Your task to perform on an android device: Open the calendar app, open the side menu, and click the "Day" option Image 0: 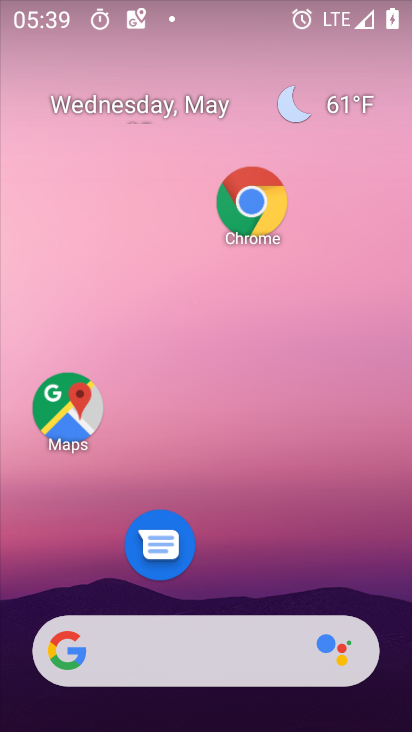
Step 0: drag from (216, 623) to (176, 247)
Your task to perform on an android device: Open the calendar app, open the side menu, and click the "Day" option Image 1: 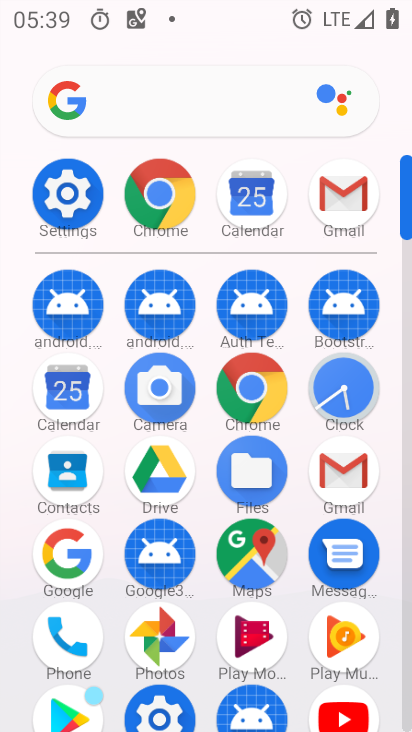
Step 1: click (259, 200)
Your task to perform on an android device: Open the calendar app, open the side menu, and click the "Day" option Image 2: 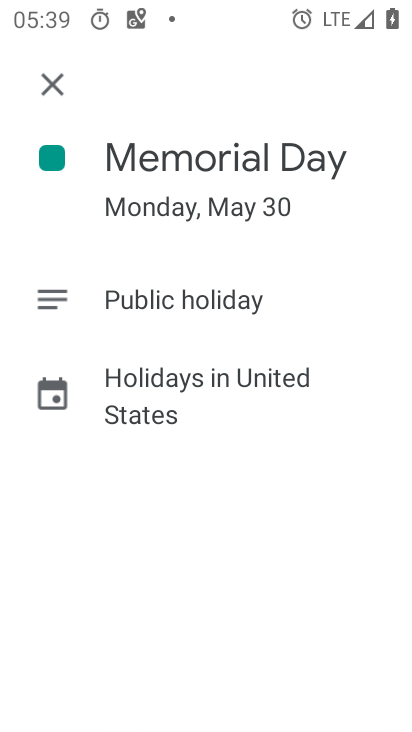
Step 2: click (51, 85)
Your task to perform on an android device: Open the calendar app, open the side menu, and click the "Day" option Image 3: 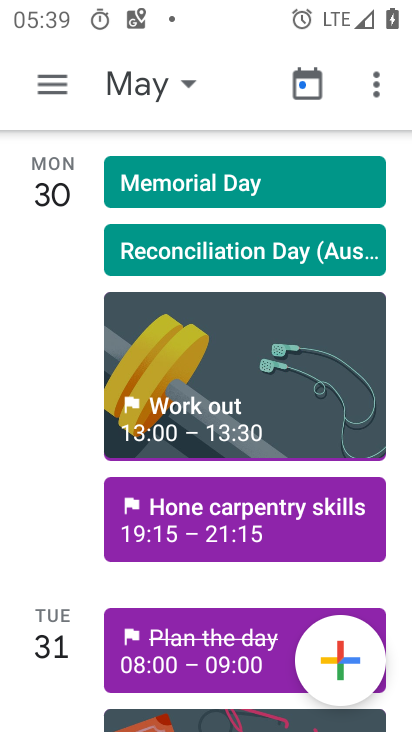
Step 3: click (64, 86)
Your task to perform on an android device: Open the calendar app, open the side menu, and click the "Day" option Image 4: 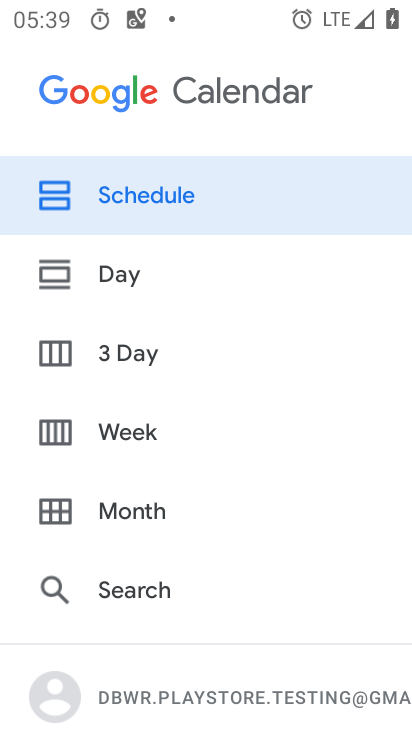
Step 4: click (117, 284)
Your task to perform on an android device: Open the calendar app, open the side menu, and click the "Day" option Image 5: 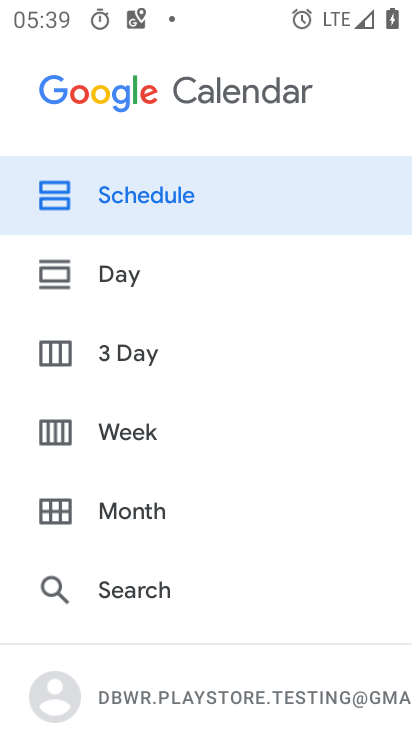
Step 5: click (152, 277)
Your task to perform on an android device: Open the calendar app, open the side menu, and click the "Day" option Image 6: 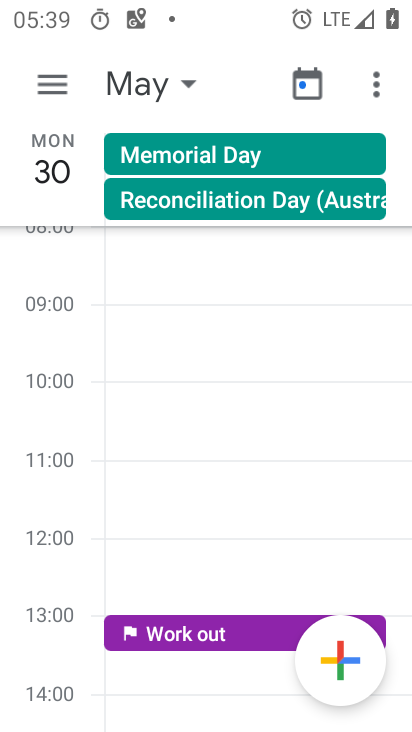
Step 6: task complete